Your task to perform on an android device: Go to location settings Image 0: 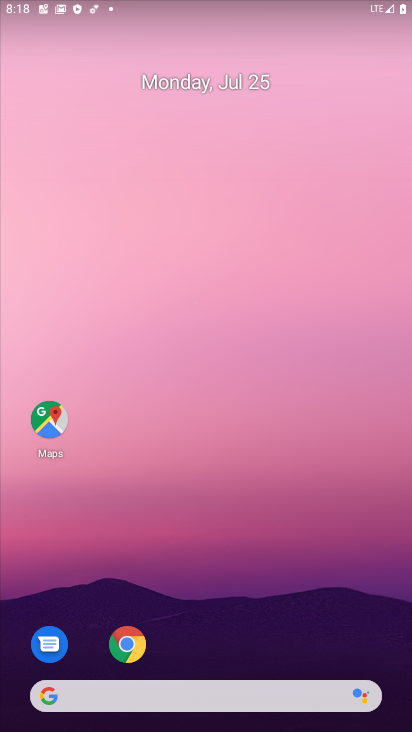
Step 0: drag from (203, 623) to (249, 275)
Your task to perform on an android device: Go to location settings Image 1: 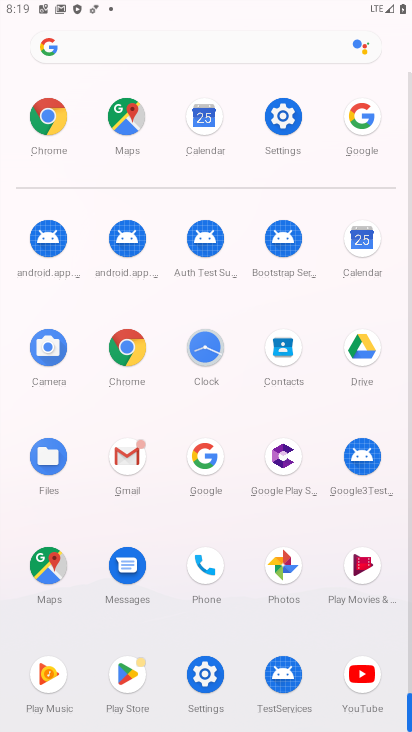
Step 1: click (212, 677)
Your task to perform on an android device: Go to location settings Image 2: 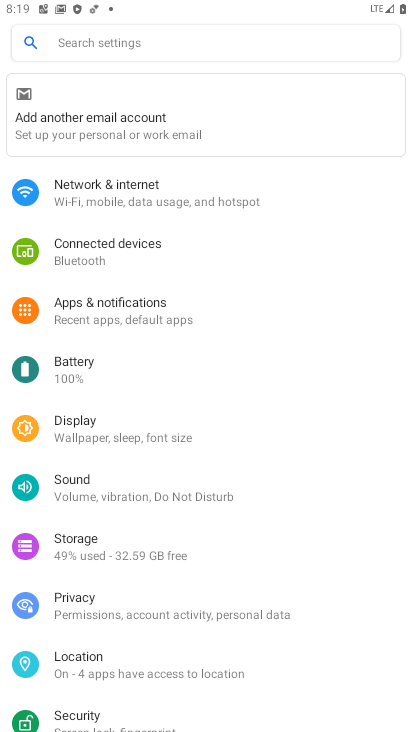
Step 2: click (121, 660)
Your task to perform on an android device: Go to location settings Image 3: 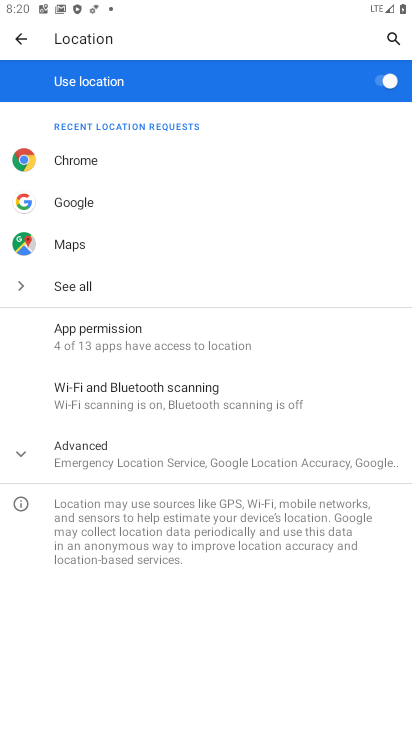
Step 3: task complete